Your task to perform on an android device: Show the shopping cart on bestbuy. Add "macbook pro 15 inch" to the cart on bestbuy Image 0: 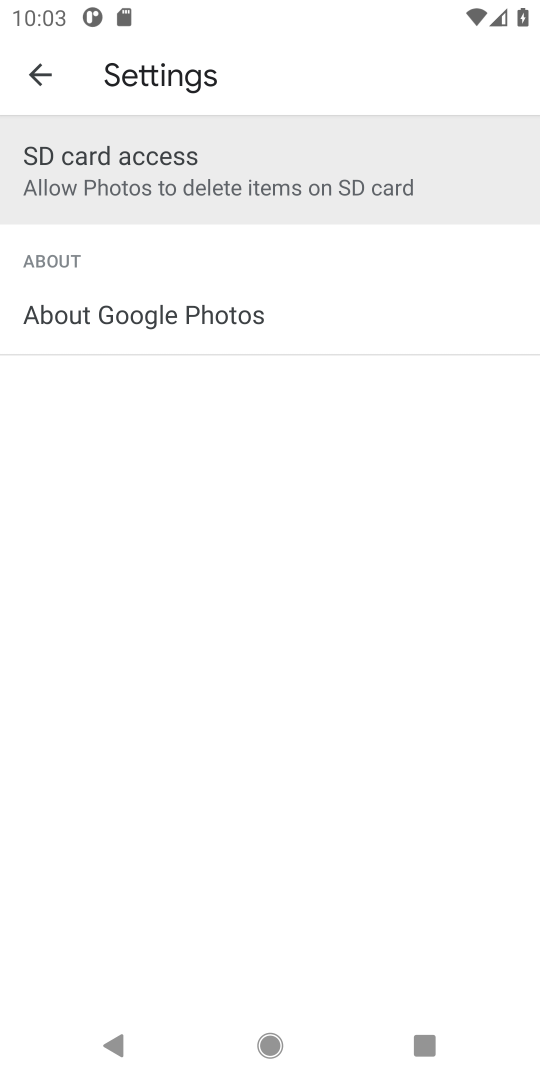
Step 0: press home button
Your task to perform on an android device: Show the shopping cart on bestbuy. Add "macbook pro 15 inch" to the cart on bestbuy Image 1: 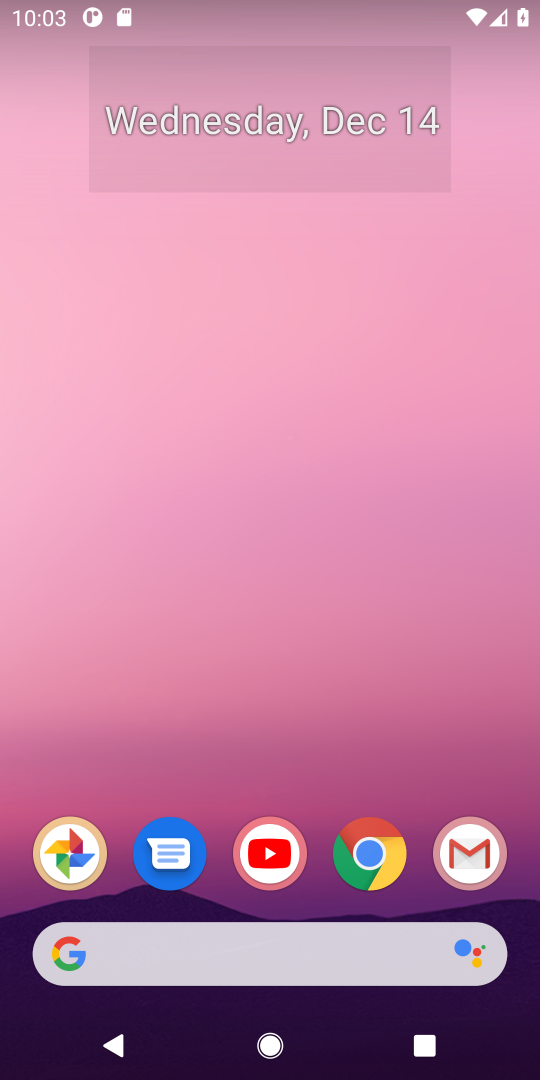
Step 1: click (381, 838)
Your task to perform on an android device: Show the shopping cart on bestbuy. Add "macbook pro 15 inch" to the cart on bestbuy Image 2: 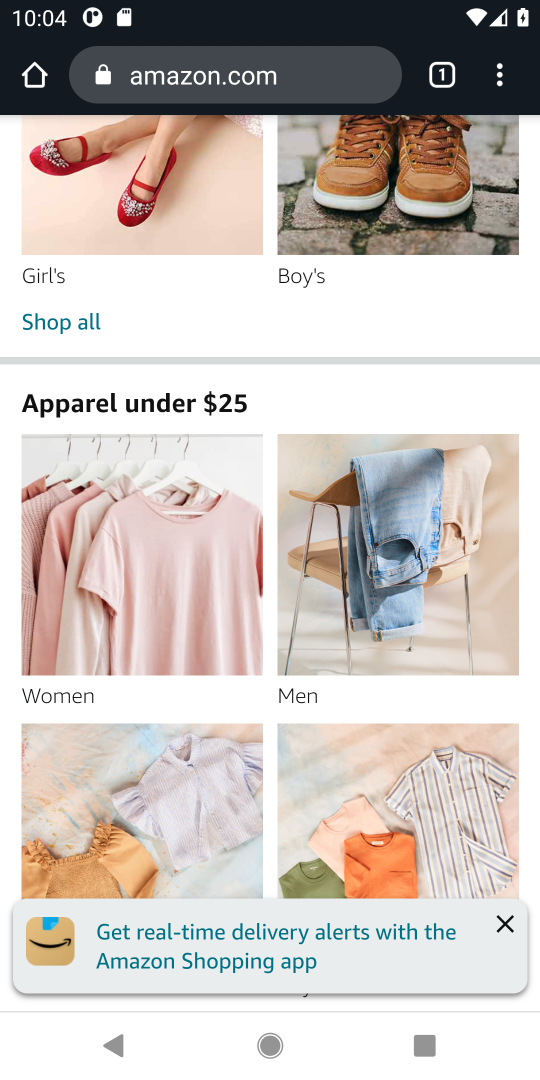
Step 2: click (219, 79)
Your task to perform on an android device: Show the shopping cart on bestbuy. Add "macbook pro 15 inch" to the cart on bestbuy Image 3: 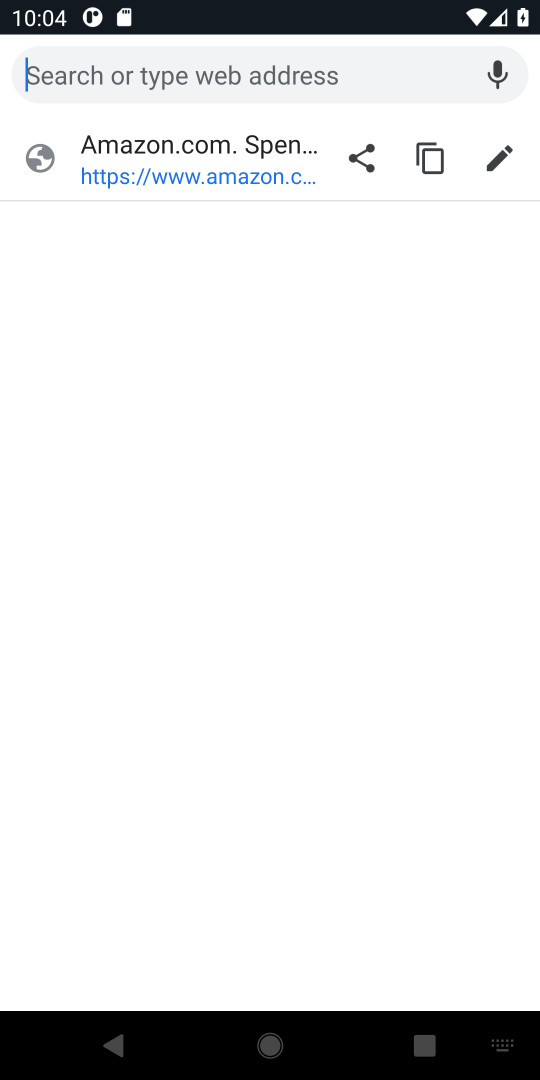
Step 3: press enter
Your task to perform on an android device: Show the shopping cart on bestbuy. Add "macbook pro 15 inch" to the cart on bestbuy Image 4: 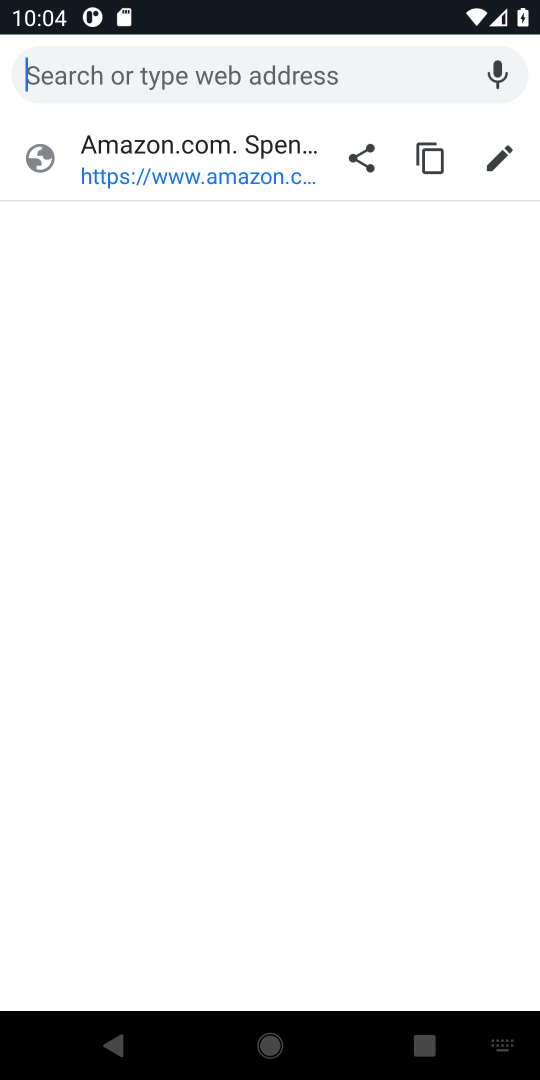
Step 4: type "bestbuy"
Your task to perform on an android device: Show the shopping cart on bestbuy. Add "macbook pro 15 inch" to the cart on bestbuy Image 5: 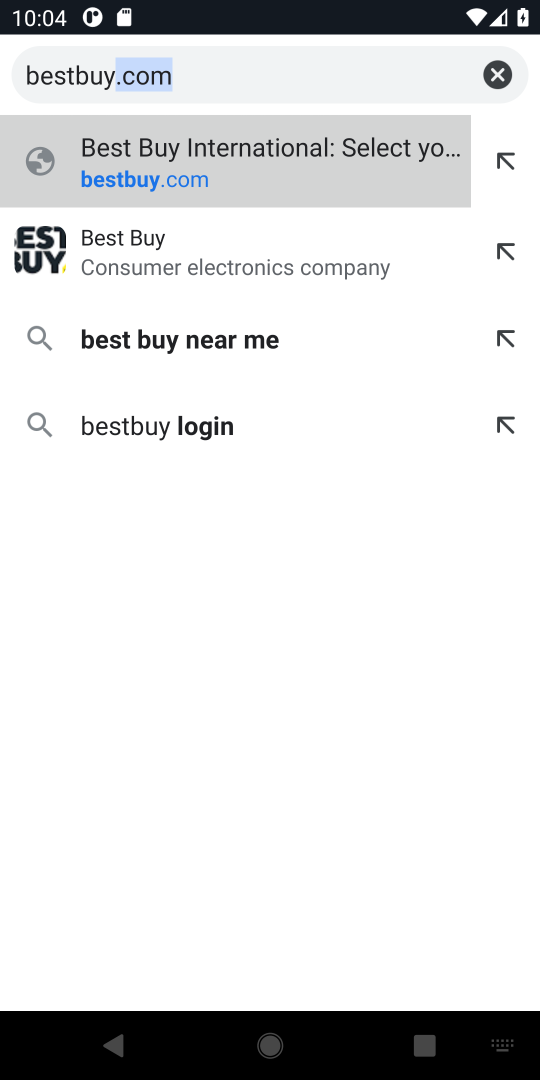
Step 5: click (382, 92)
Your task to perform on an android device: Show the shopping cart on bestbuy. Add "macbook pro 15 inch" to the cart on bestbuy Image 6: 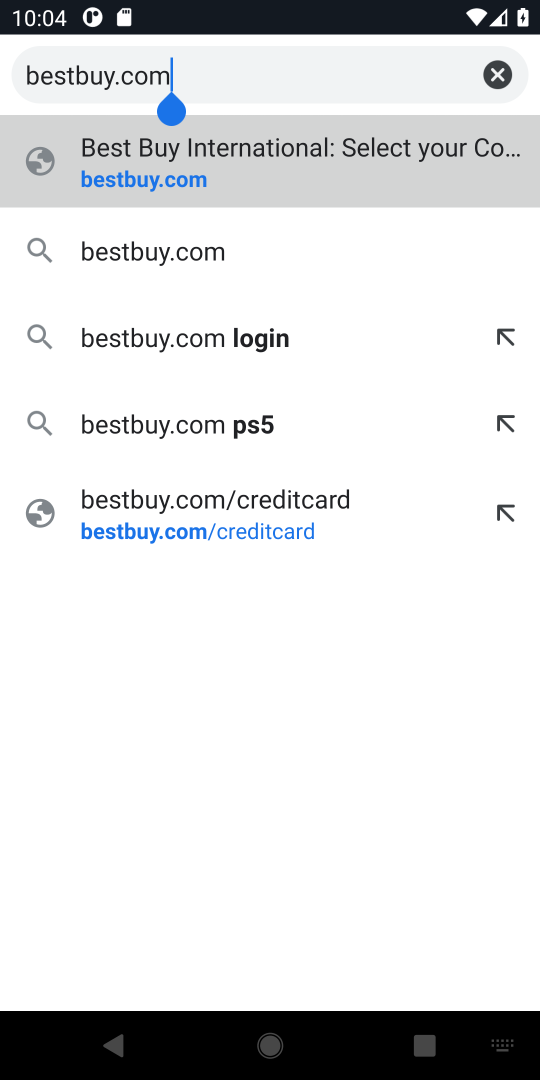
Step 6: press enter
Your task to perform on an android device: Show the shopping cart on bestbuy. Add "macbook pro 15 inch" to the cart on bestbuy Image 7: 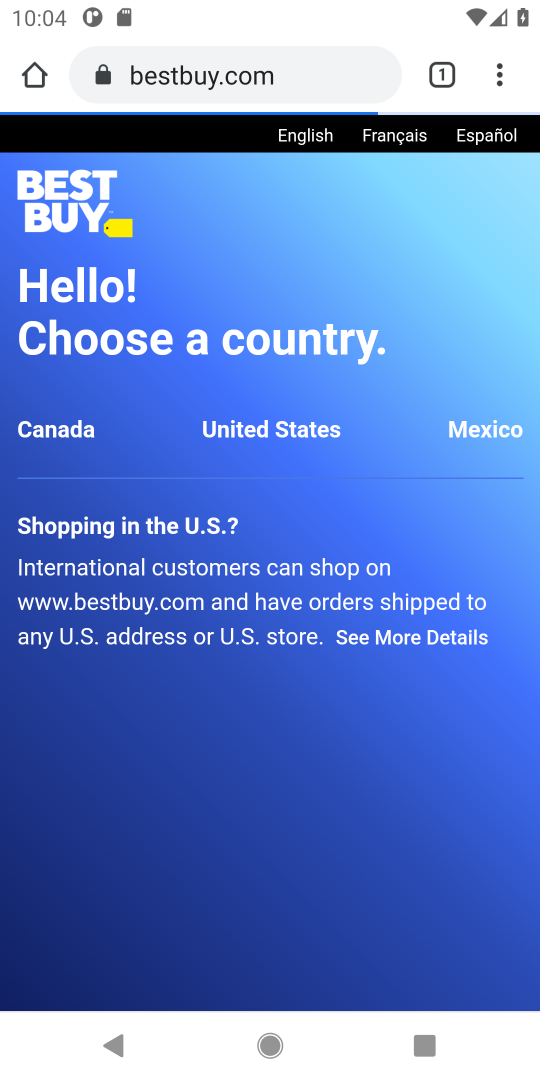
Step 7: click (188, 248)
Your task to perform on an android device: Show the shopping cart on bestbuy. Add "macbook pro 15 inch" to the cart on bestbuy Image 8: 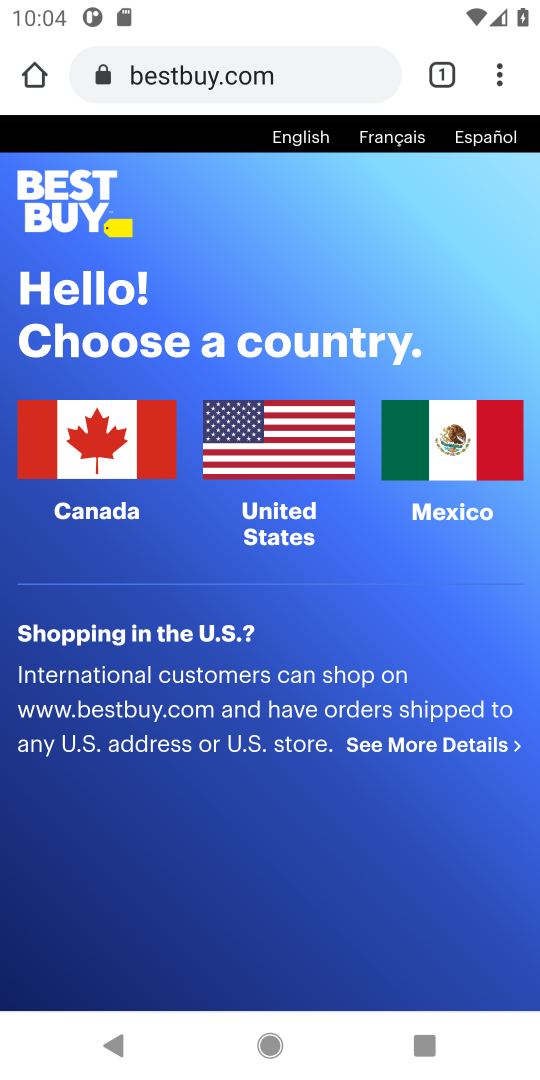
Step 8: click (284, 441)
Your task to perform on an android device: Show the shopping cart on bestbuy. Add "macbook pro 15 inch" to the cart on bestbuy Image 9: 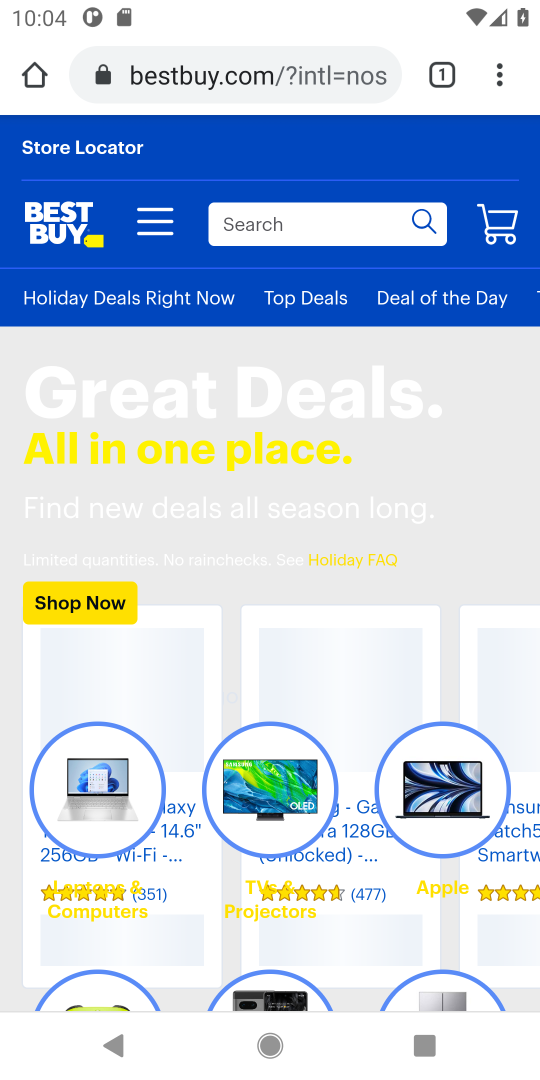
Step 9: click (504, 229)
Your task to perform on an android device: Show the shopping cart on bestbuy. Add "macbook pro 15 inch" to the cart on bestbuy Image 10: 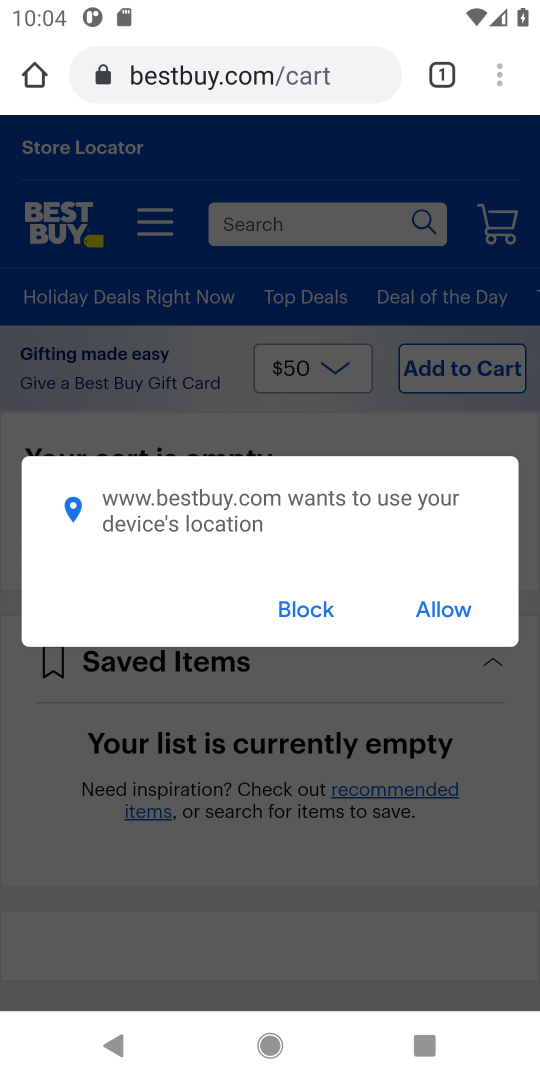
Step 10: click (310, 610)
Your task to perform on an android device: Show the shopping cart on bestbuy. Add "macbook pro 15 inch" to the cart on bestbuy Image 11: 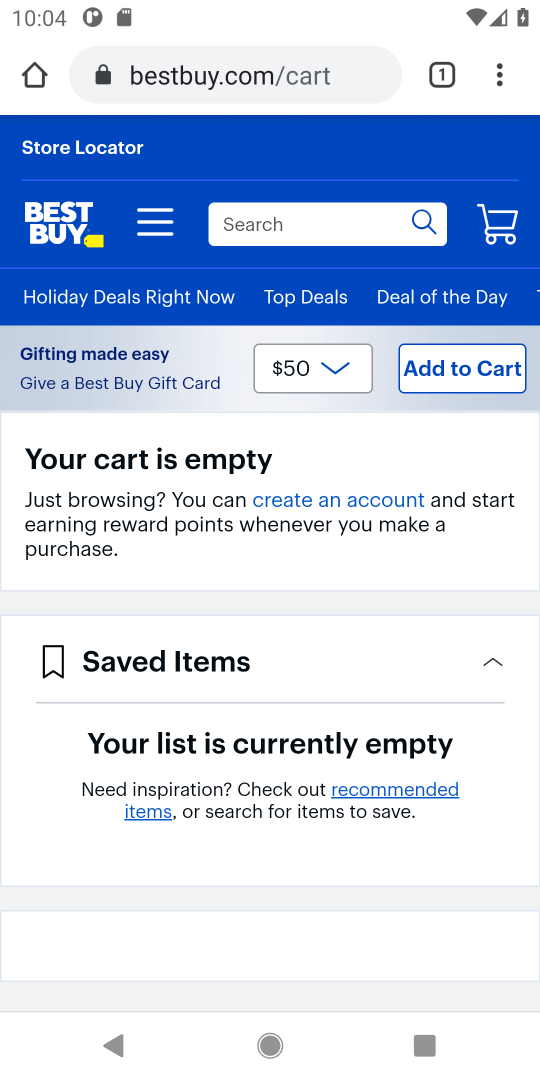
Step 11: click (332, 222)
Your task to perform on an android device: Show the shopping cart on bestbuy. Add "macbook pro 15 inch" to the cart on bestbuy Image 12: 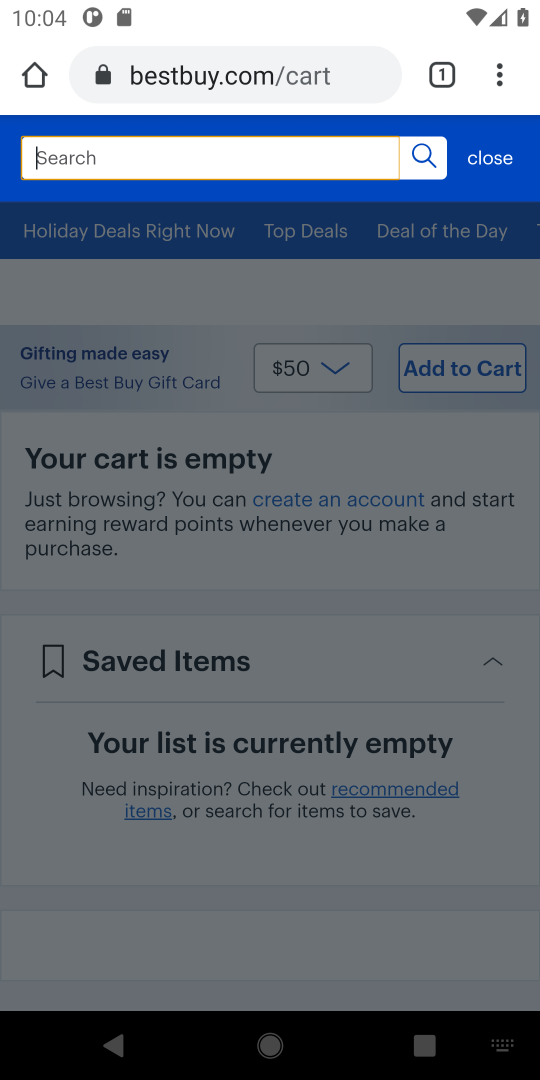
Step 12: press enter
Your task to perform on an android device: Show the shopping cart on bestbuy. Add "macbook pro 15 inch" to the cart on bestbuy Image 13: 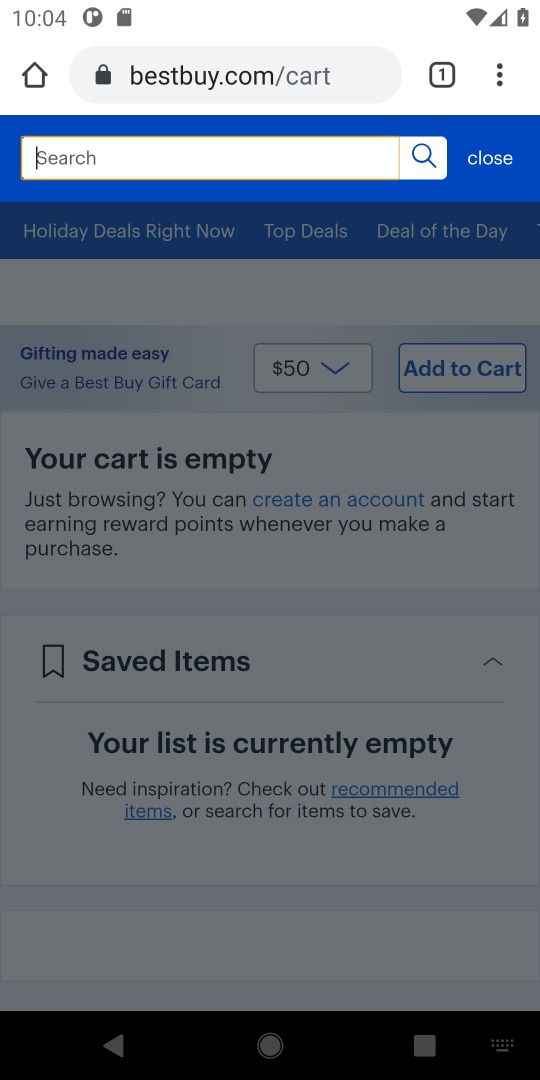
Step 13: type "macbook pro 15 inch"
Your task to perform on an android device: Show the shopping cart on bestbuy. Add "macbook pro 15 inch" to the cart on bestbuy Image 14: 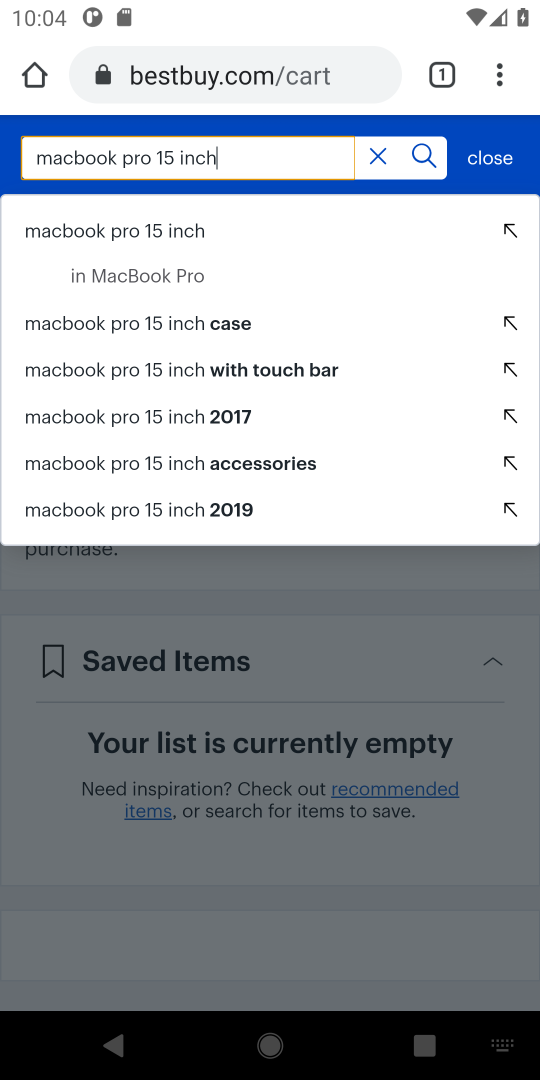
Step 14: click (178, 224)
Your task to perform on an android device: Show the shopping cart on bestbuy. Add "macbook pro 15 inch" to the cart on bestbuy Image 15: 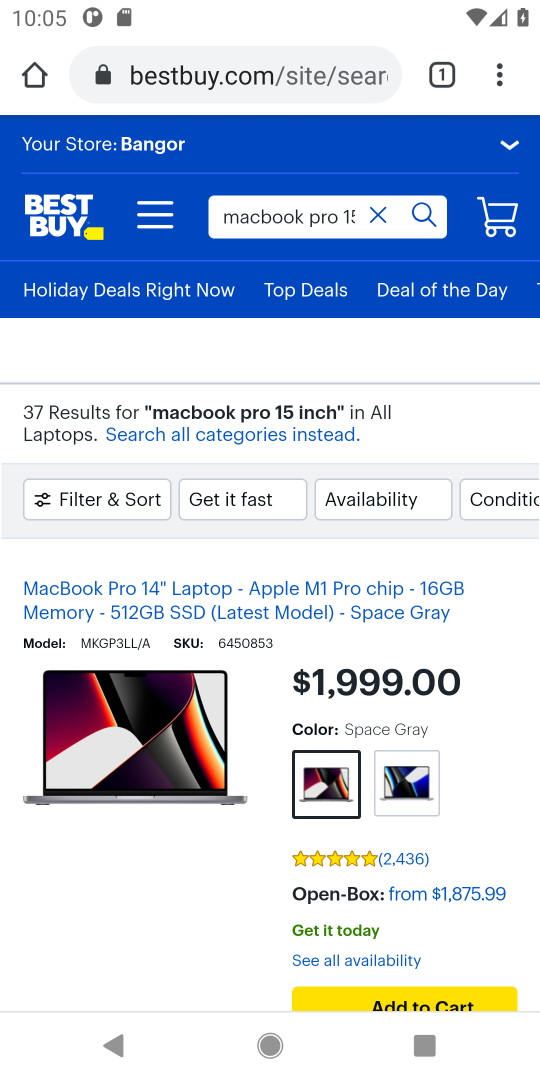
Step 15: drag from (228, 847) to (336, 286)
Your task to perform on an android device: Show the shopping cart on bestbuy. Add "macbook pro 15 inch" to the cart on bestbuy Image 16: 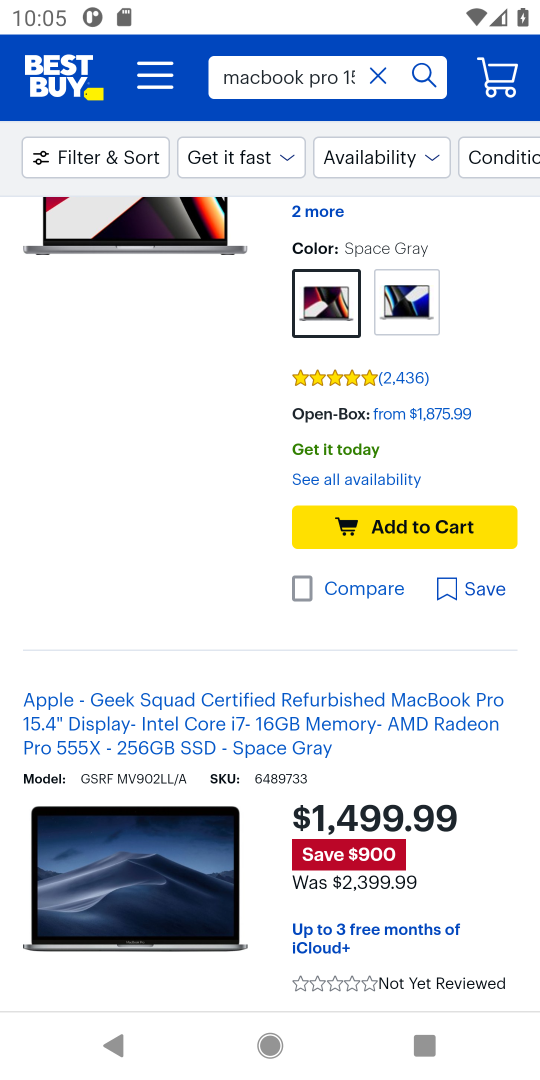
Step 16: drag from (242, 869) to (344, 515)
Your task to perform on an android device: Show the shopping cart on bestbuy. Add "macbook pro 15 inch" to the cart on bestbuy Image 17: 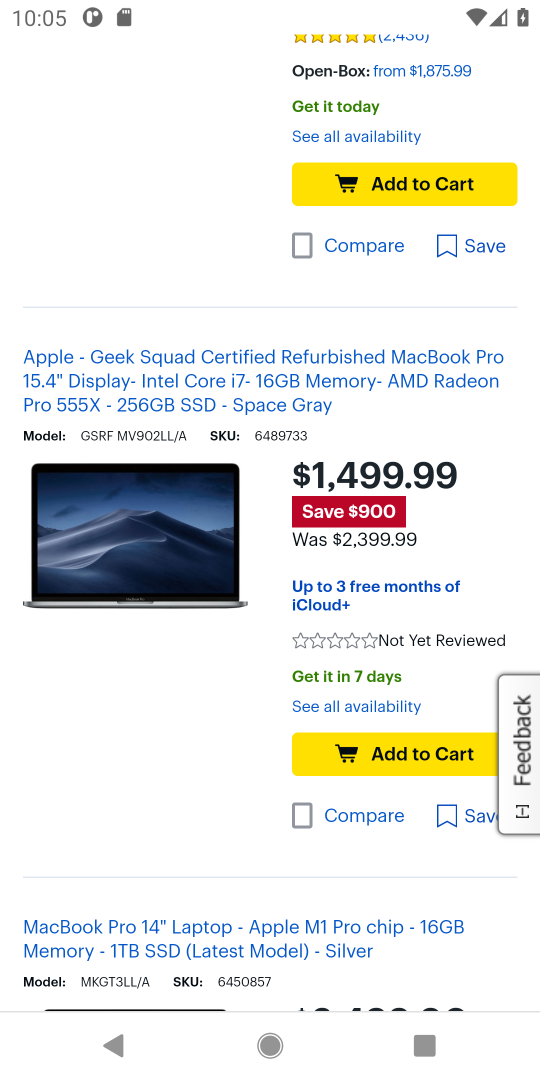
Step 17: click (120, 562)
Your task to perform on an android device: Show the shopping cart on bestbuy. Add "macbook pro 15 inch" to the cart on bestbuy Image 18: 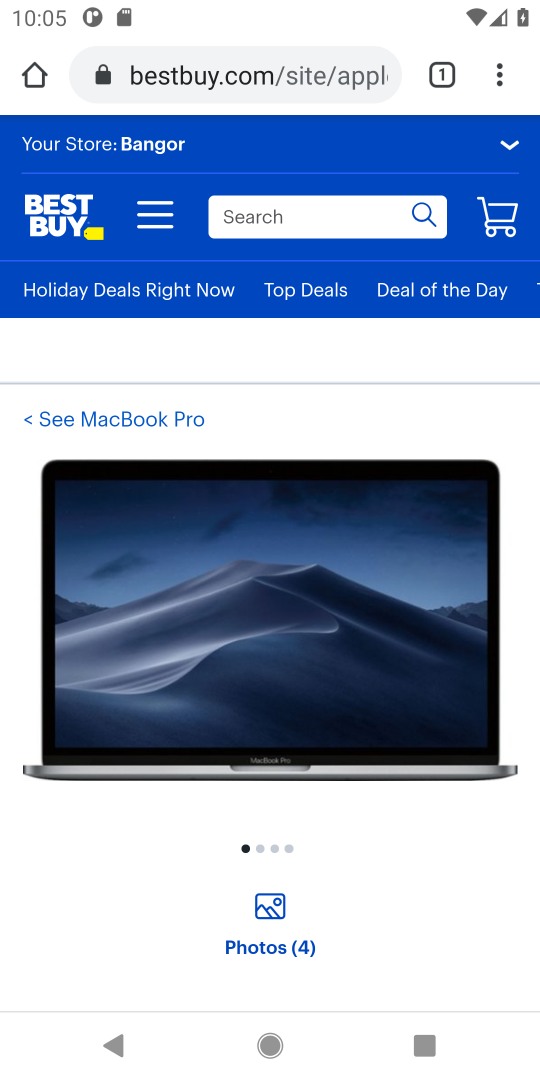
Step 18: drag from (475, 884) to (539, 261)
Your task to perform on an android device: Show the shopping cart on bestbuy. Add "macbook pro 15 inch" to the cart on bestbuy Image 19: 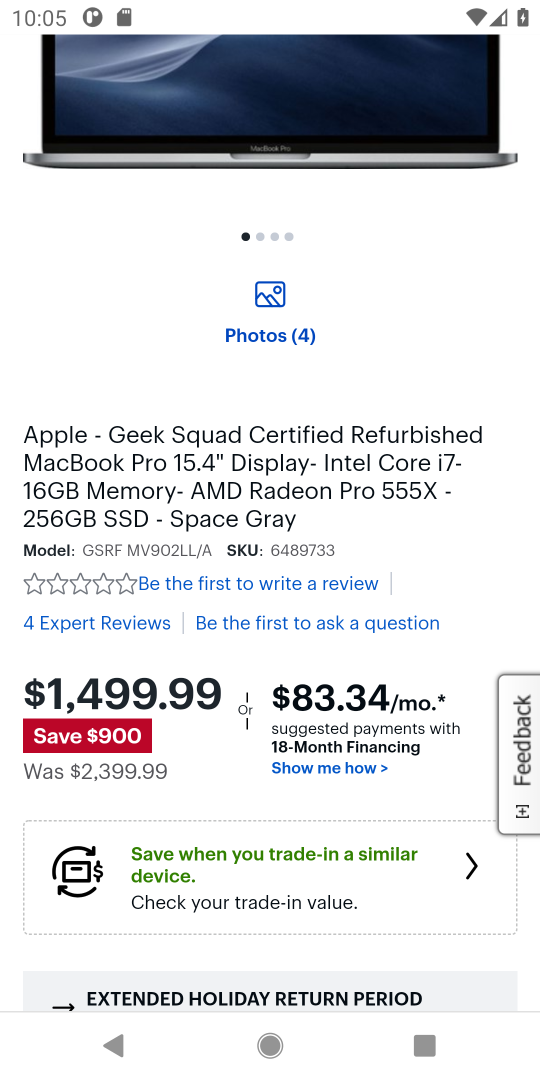
Step 19: drag from (484, 673) to (531, 256)
Your task to perform on an android device: Show the shopping cart on bestbuy. Add "macbook pro 15 inch" to the cart on bestbuy Image 20: 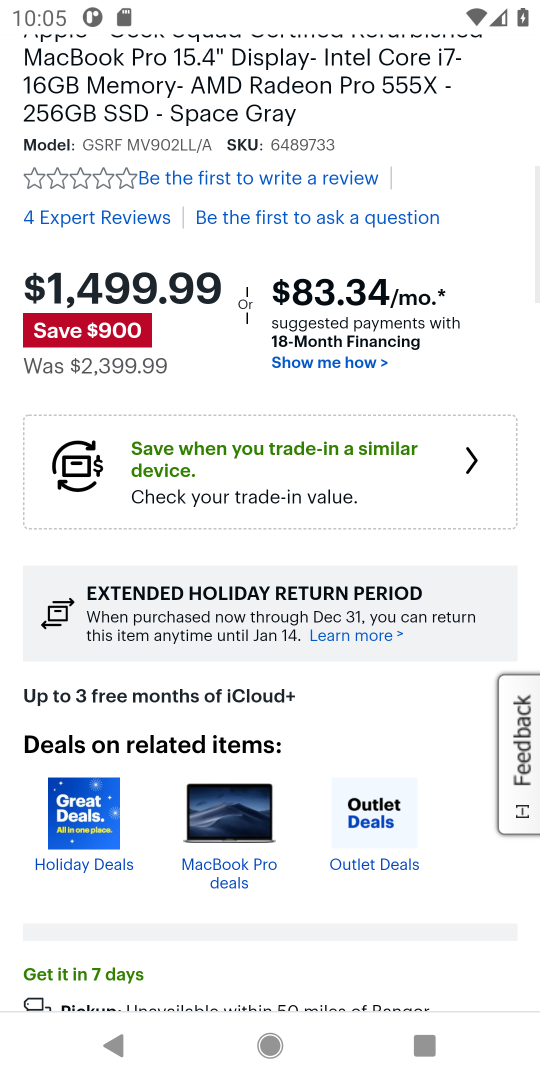
Step 20: drag from (374, 751) to (427, 266)
Your task to perform on an android device: Show the shopping cart on bestbuy. Add "macbook pro 15 inch" to the cart on bestbuy Image 21: 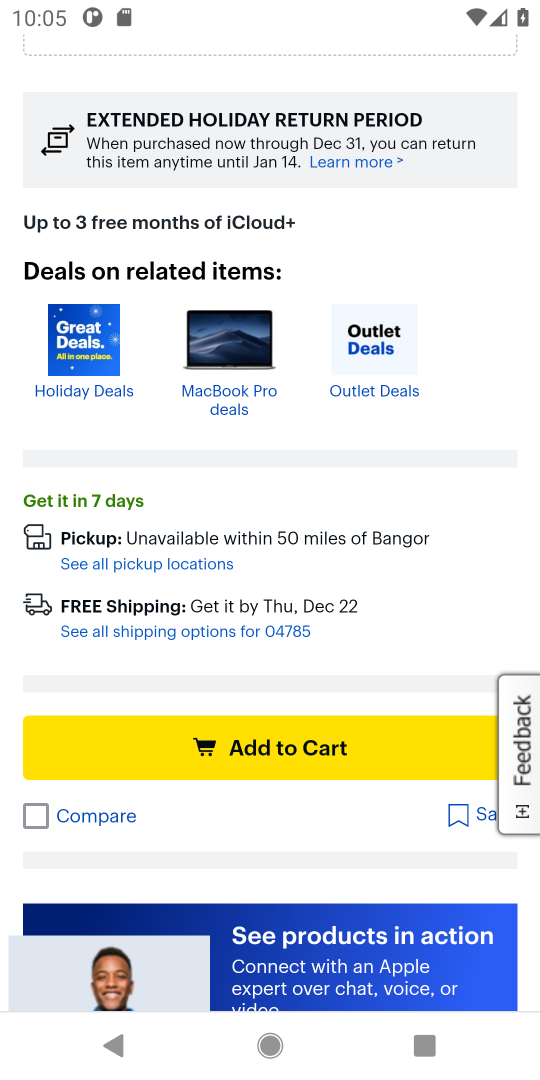
Step 21: click (311, 752)
Your task to perform on an android device: Show the shopping cart on bestbuy. Add "macbook pro 15 inch" to the cart on bestbuy Image 22: 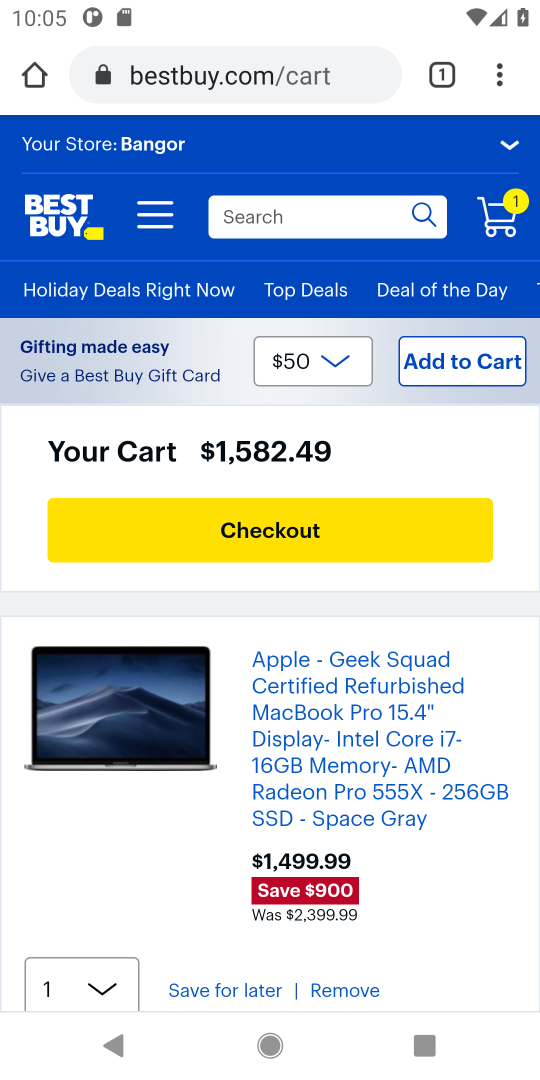
Step 22: task complete